Your task to perform on an android device: Search for seafood restaurants on Google Maps Image 0: 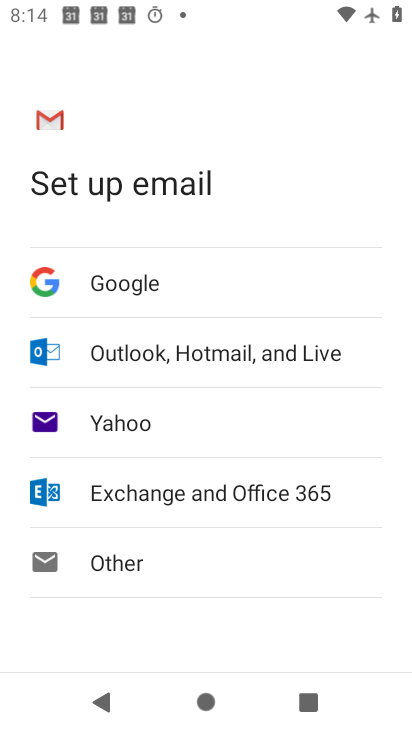
Step 0: drag from (340, 549) to (368, 121)
Your task to perform on an android device: Search for seafood restaurants on Google Maps Image 1: 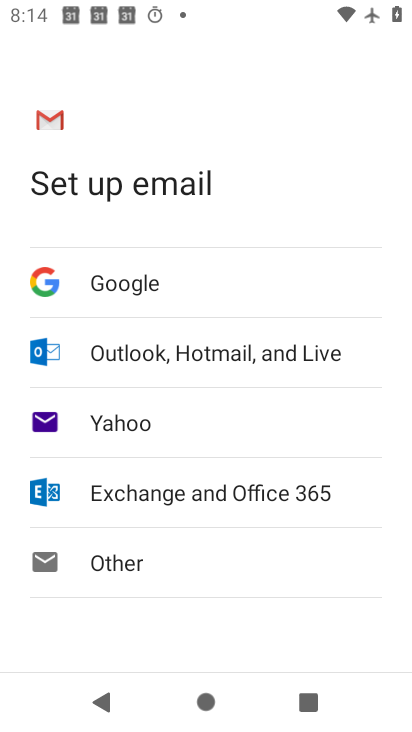
Step 1: press home button
Your task to perform on an android device: Search for seafood restaurants on Google Maps Image 2: 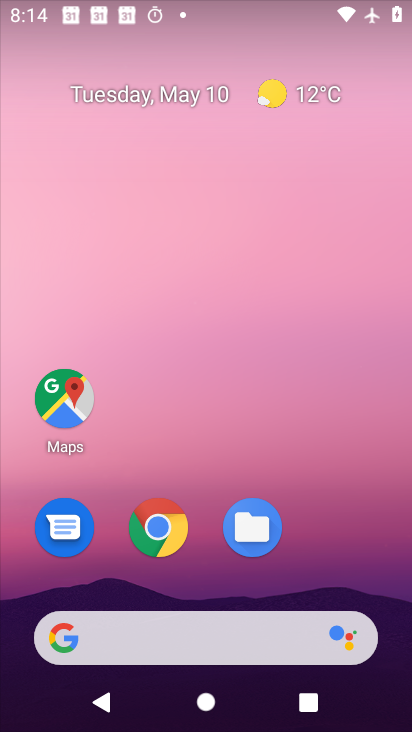
Step 2: click (89, 403)
Your task to perform on an android device: Search for seafood restaurants on Google Maps Image 3: 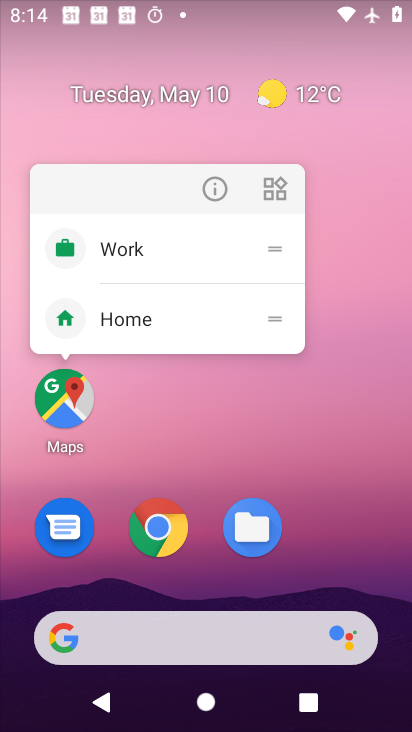
Step 3: click (65, 411)
Your task to perform on an android device: Search for seafood restaurants on Google Maps Image 4: 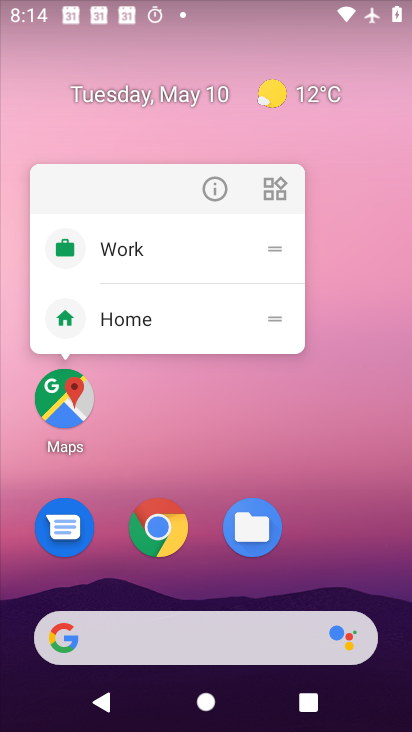
Step 4: click (73, 408)
Your task to perform on an android device: Search for seafood restaurants on Google Maps Image 5: 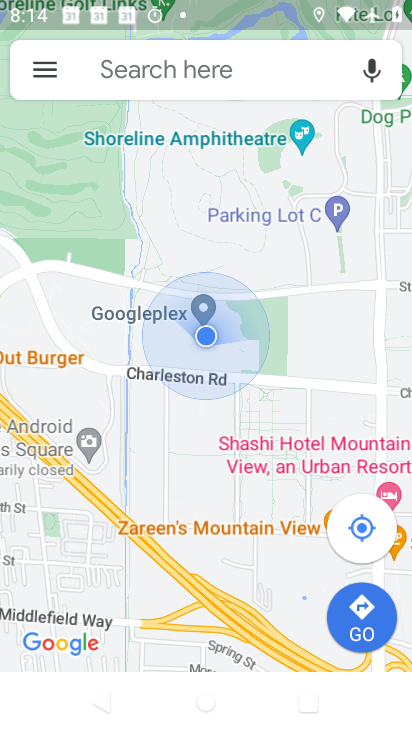
Step 5: click (55, 70)
Your task to perform on an android device: Search for seafood restaurants on Google Maps Image 6: 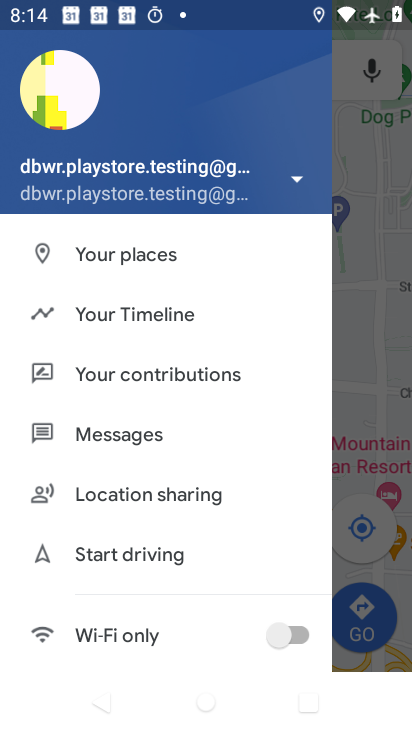
Step 6: click (365, 86)
Your task to perform on an android device: Search for seafood restaurants on Google Maps Image 7: 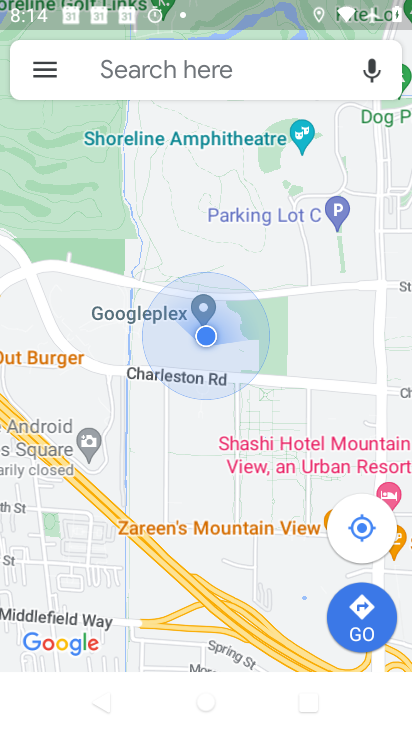
Step 7: click (267, 77)
Your task to perform on an android device: Search for seafood restaurants on Google Maps Image 8: 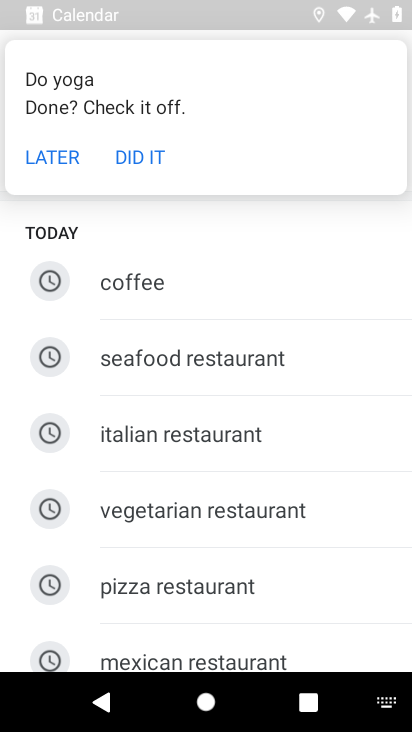
Step 8: click (198, 363)
Your task to perform on an android device: Search for seafood restaurants on Google Maps Image 9: 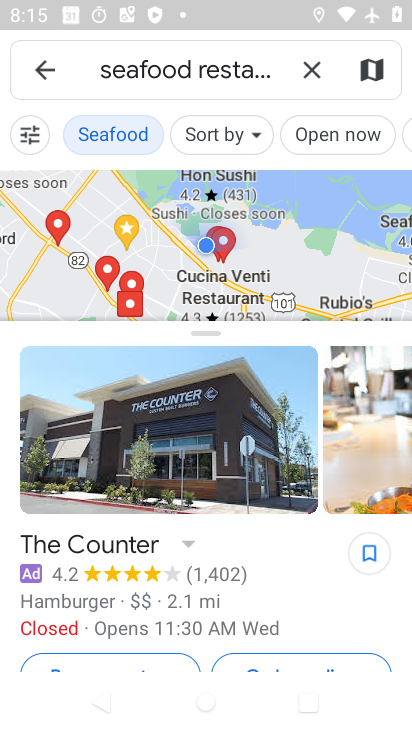
Step 9: task complete